Your task to perform on an android device: What's the weather going to be tomorrow? Image 0: 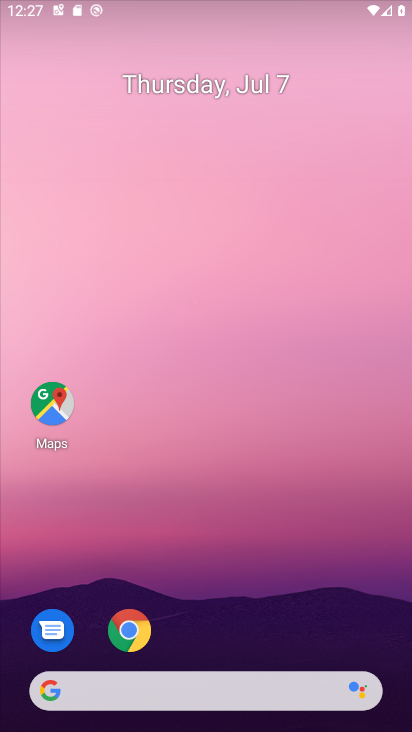
Step 0: drag from (270, 635) to (270, 263)
Your task to perform on an android device: What's the weather going to be tomorrow? Image 1: 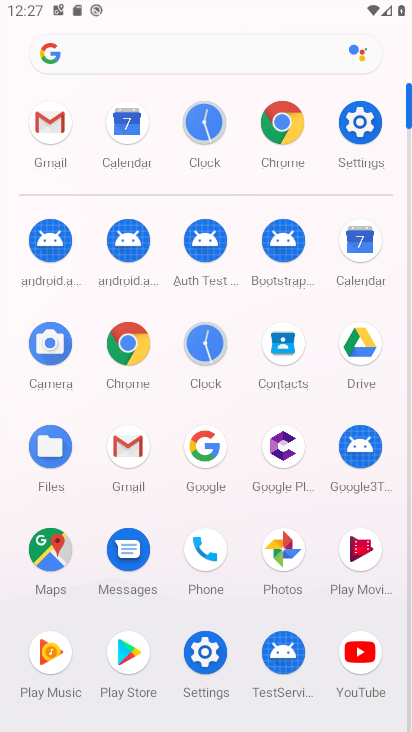
Step 1: click (275, 114)
Your task to perform on an android device: What's the weather going to be tomorrow? Image 2: 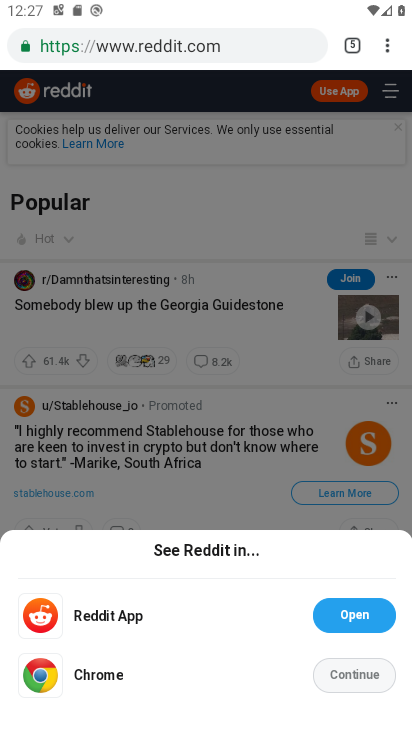
Step 2: click (116, 215)
Your task to perform on an android device: What's the weather going to be tomorrow? Image 3: 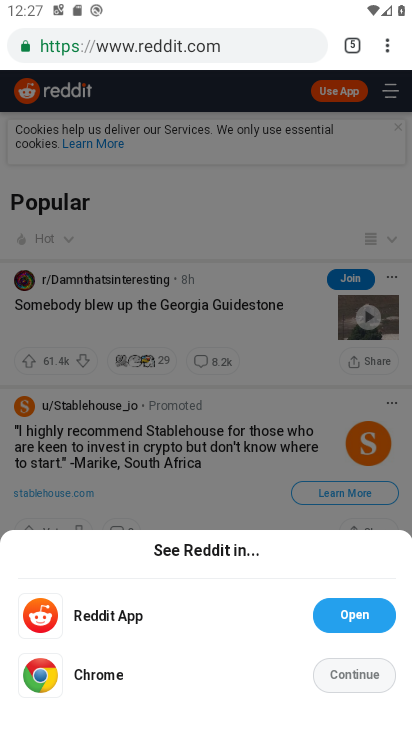
Step 3: click (397, 44)
Your task to perform on an android device: What's the weather going to be tomorrow? Image 4: 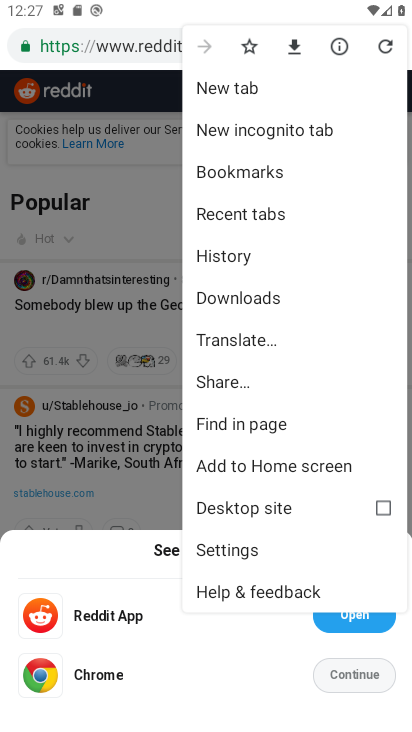
Step 4: click (256, 88)
Your task to perform on an android device: What's the weather going to be tomorrow? Image 5: 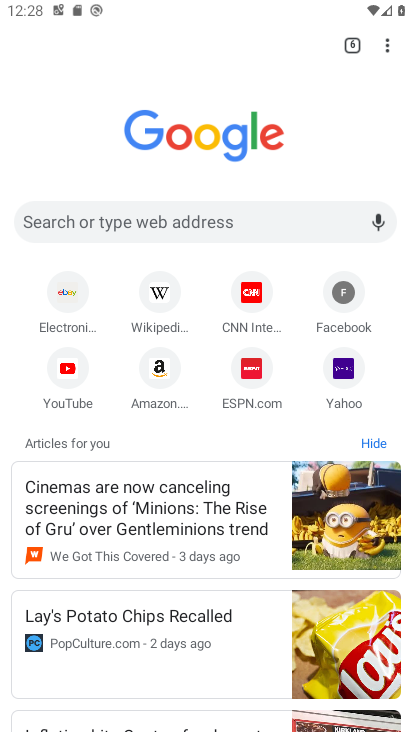
Step 5: click (243, 220)
Your task to perform on an android device: What's the weather going to be tomorrow? Image 6: 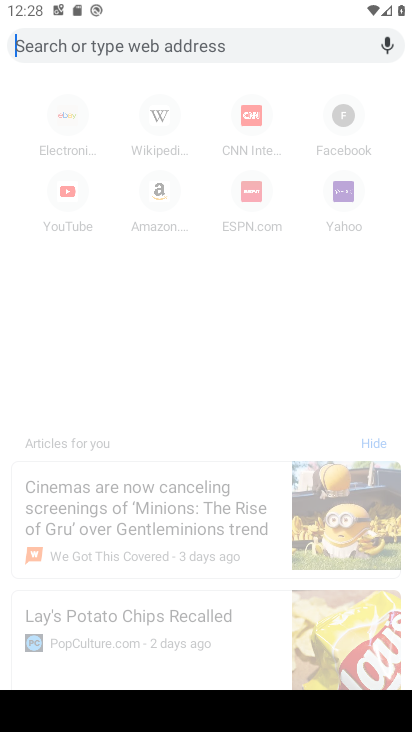
Step 6: type "What's the weather going to be tomorrow "
Your task to perform on an android device: What's the weather going to be tomorrow? Image 7: 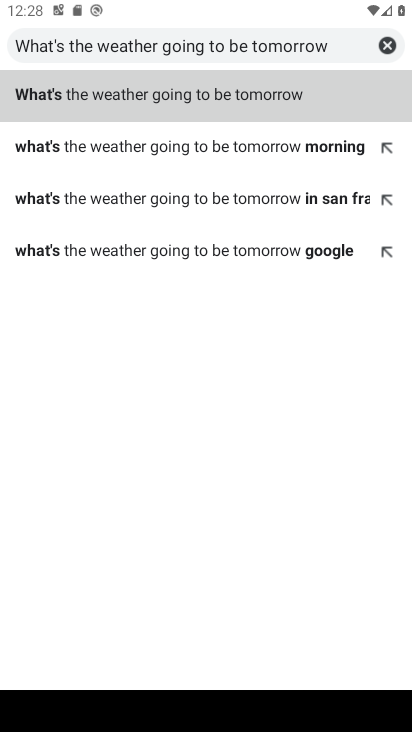
Step 7: click (202, 89)
Your task to perform on an android device: What's the weather going to be tomorrow? Image 8: 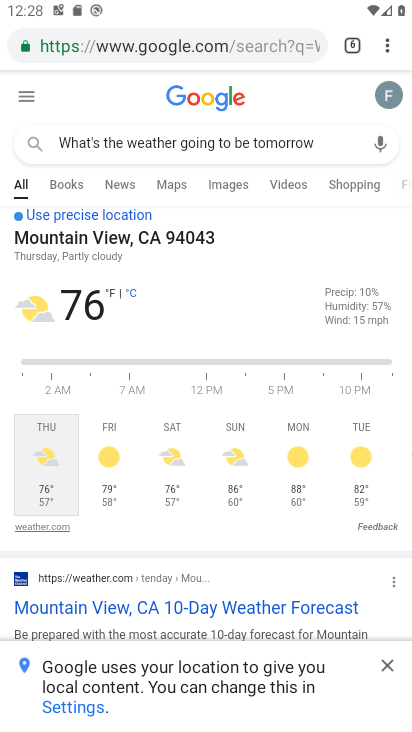
Step 8: task complete